Your task to perform on an android device: Go to Android settings Image 0: 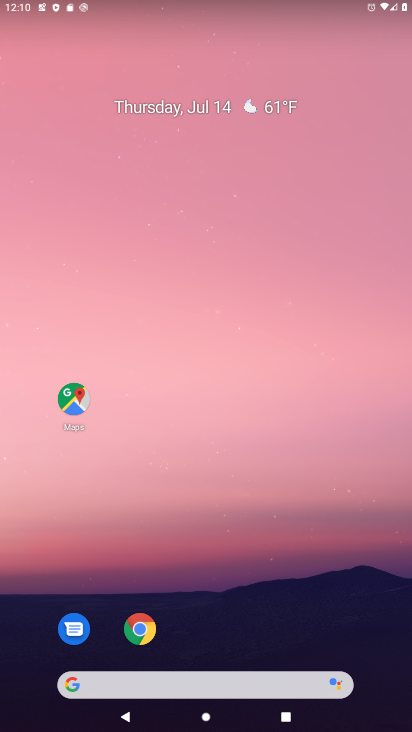
Step 0: press home button
Your task to perform on an android device: Go to Android settings Image 1: 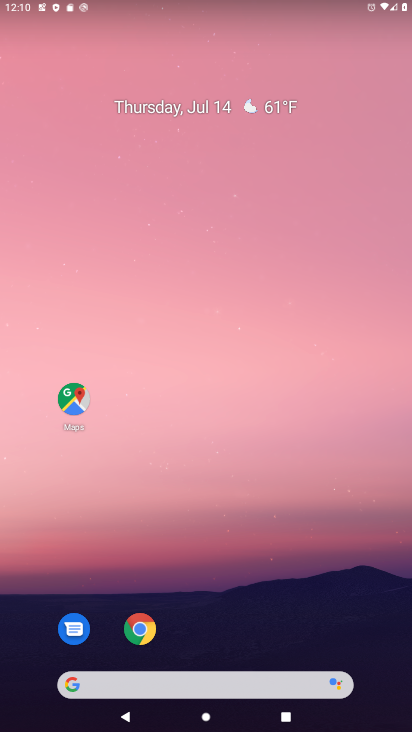
Step 1: drag from (218, 597) to (212, 129)
Your task to perform on an android device: Go to Android settings Image 2: 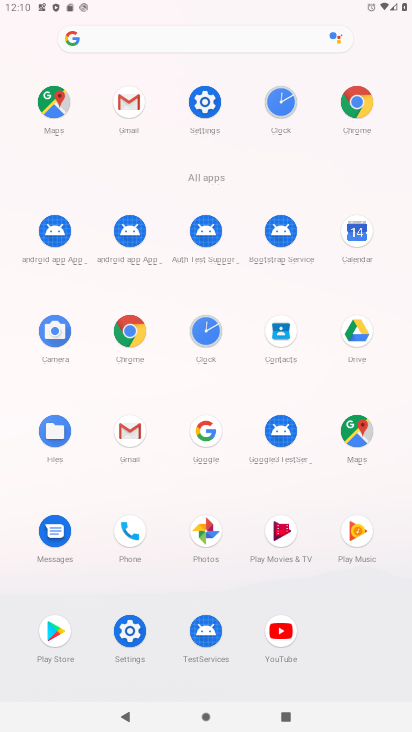
Step 2: click (209, 105)
Your task to perform on an android device: Go to Android settings Image 3: 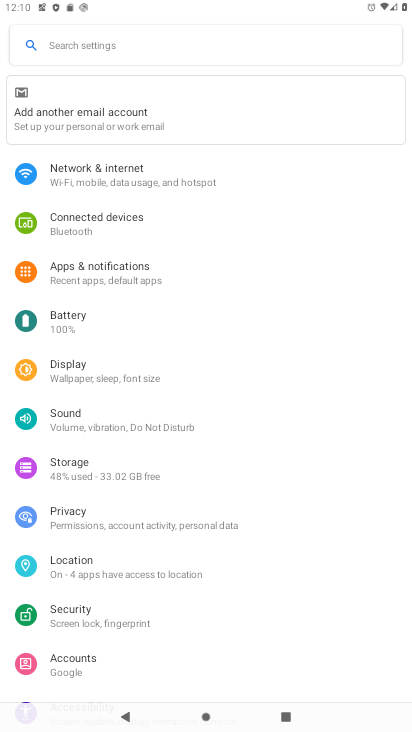
Step 3: task complete